Your task to perform on an android device: What's the weather? Image 0: 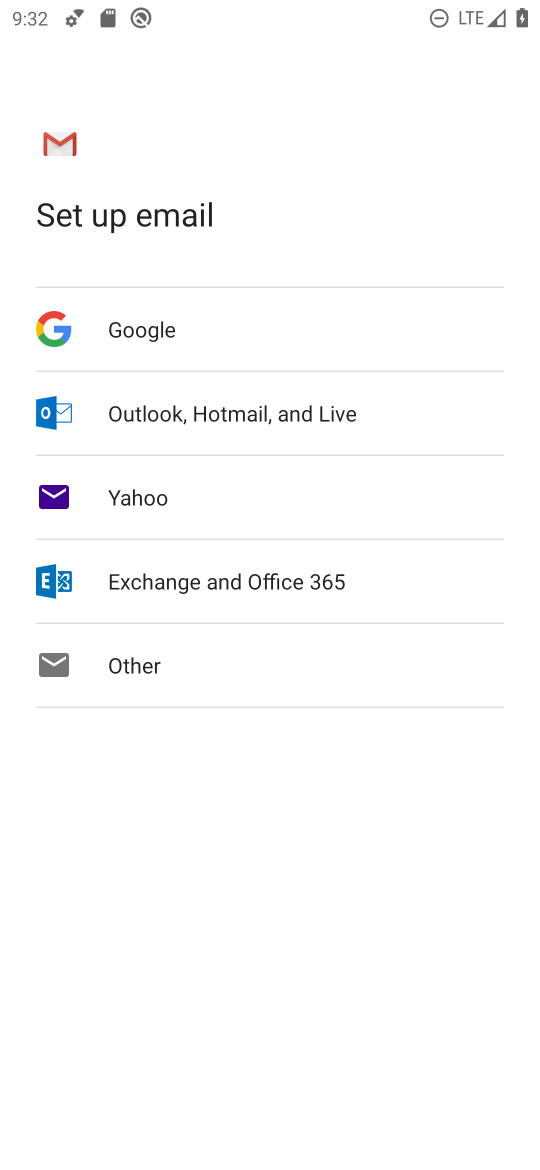
Step 0: press home button
Your task to perform on an android device: What's the weather? Image 1: 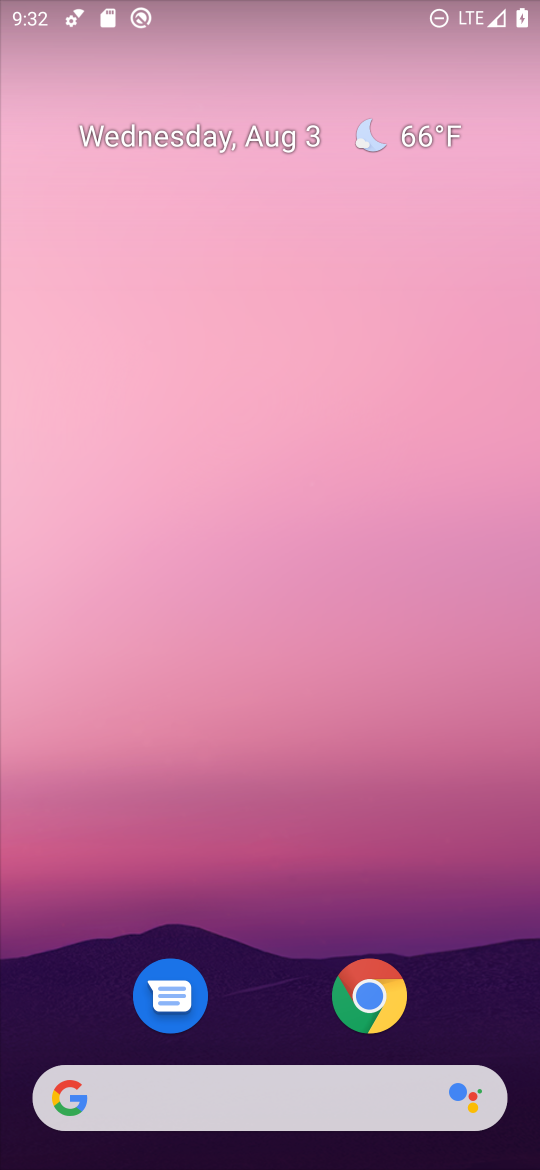
Step 1: click (400, 148)
Your task to perform on an android device: What's the weather? Image 2: 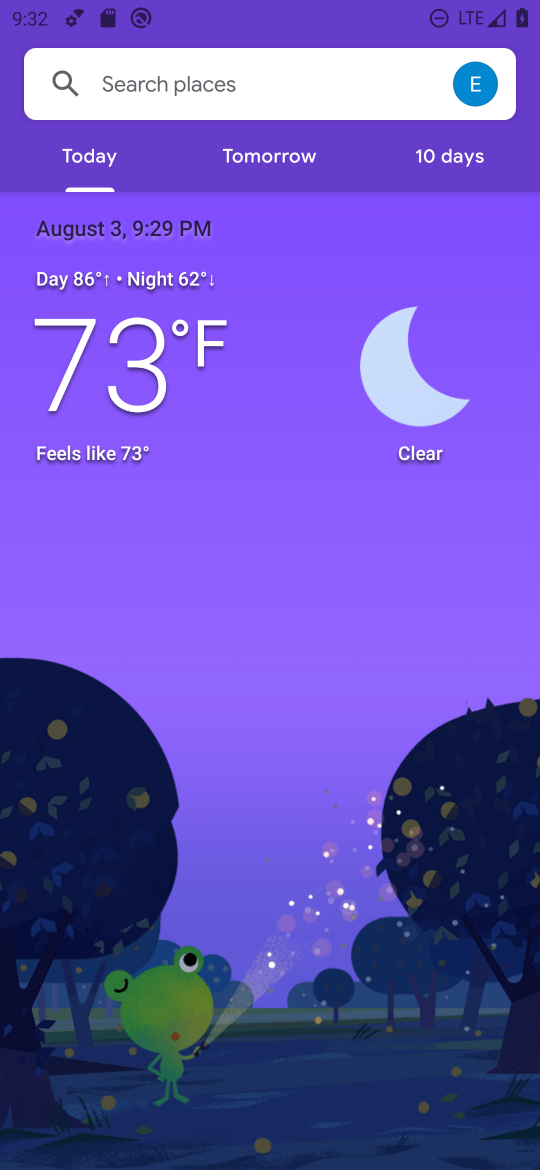
Step 2: task complete